Your task to perform on an android device: change notification settings in the gmail app Image 0: 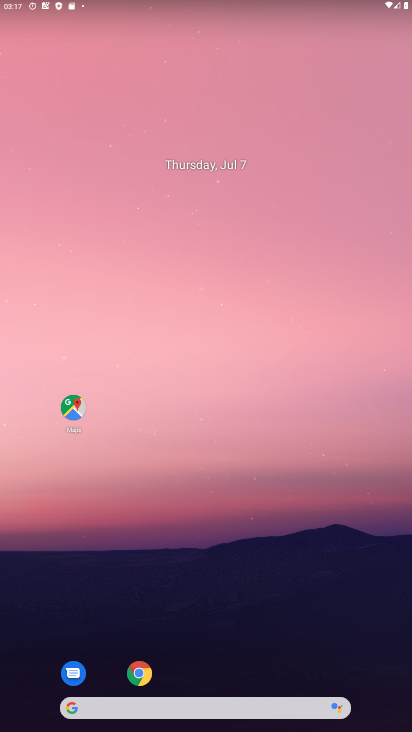
Step 0: drag from (215, 658) to (261, 207)
Your task to perform on an android device: change notification settings in the gmail app Image 1: 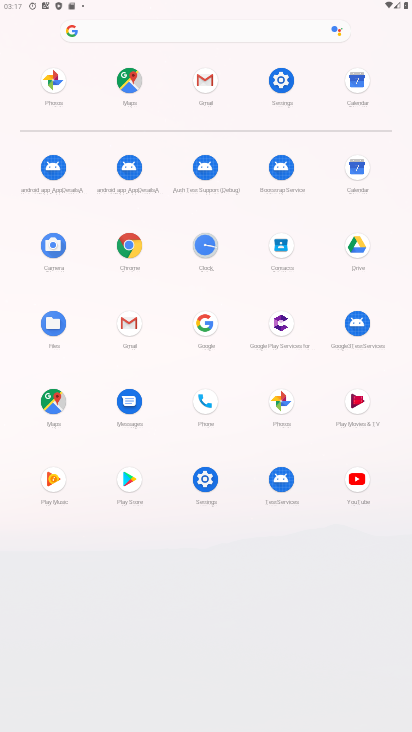
Step 1: click (209, 95)
Your task to perform on an android device: change notification settings in the gmail app Image 2: 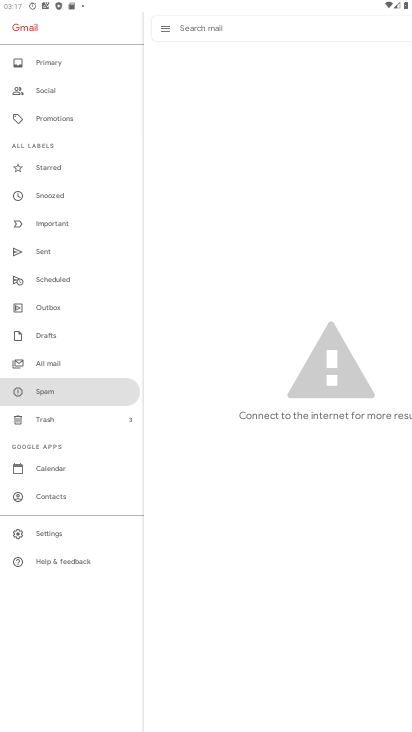
Step 2: click (68, 527)
Your task to perform on an android device: change notification settings in the gmail app Image 3: 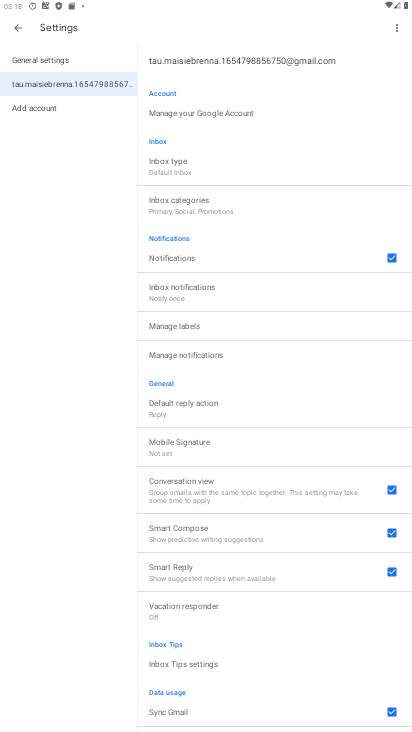
Step 3: click (202, 353)
Your task to perform on an android device: change notification settings in the gmail app Image 4: 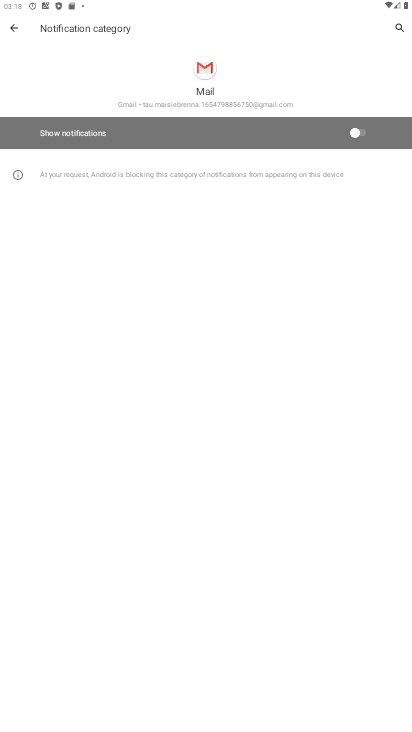
Step 4: click (363, 135)
Your task to perform on an android device: change notification settings in the gmail app Image 5: 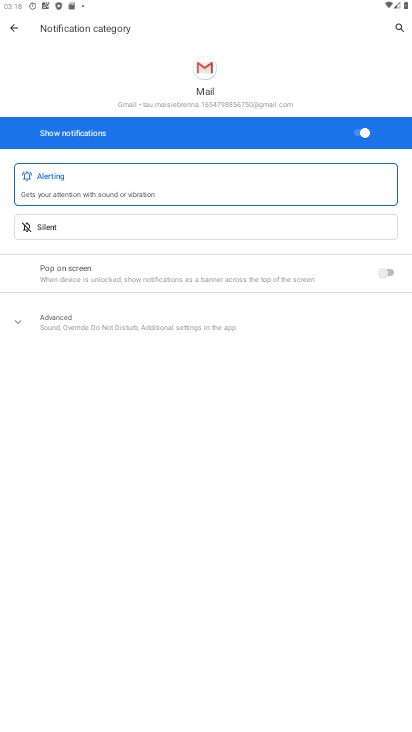
Step 5: task complete